Your task to perform on an android device: turn smart compose on in the gmail app Image 0: 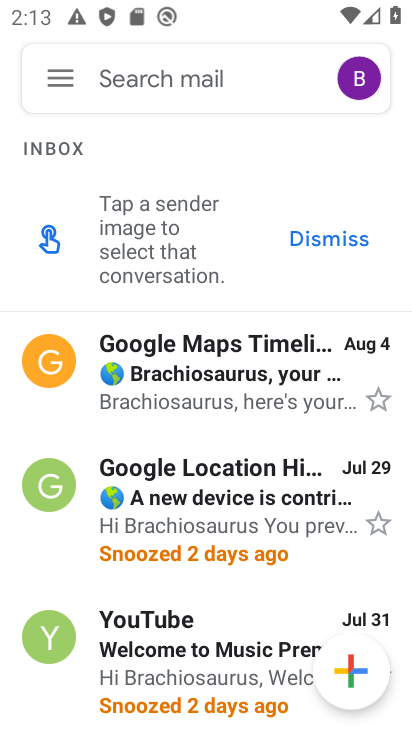
Step 0: click (50, 79)
Your task to perform on an android device: turn smart compose on in the gmail app Image 1: 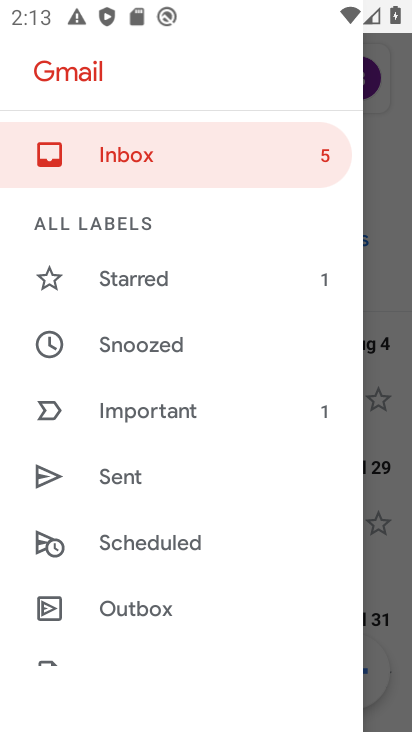
Step 1: drag from (190, 640) to (136, 113)
Your task to perform on an android device: turn smart compose on in the gmail app Image 2: 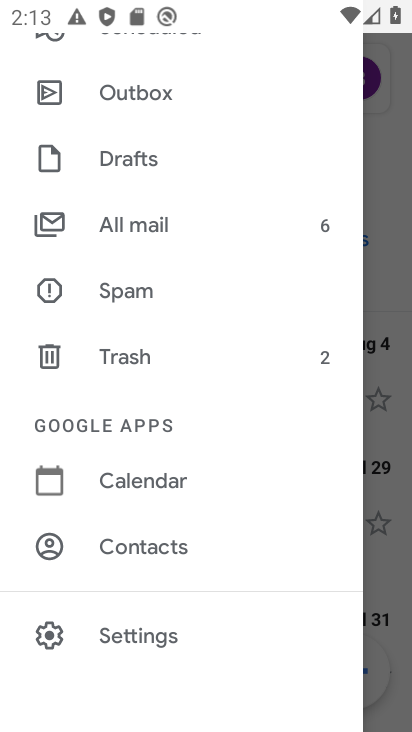
Step 2: click (187, 641)
Your task to perform on an android device: turn smart compose on in the gmail app Image 3: 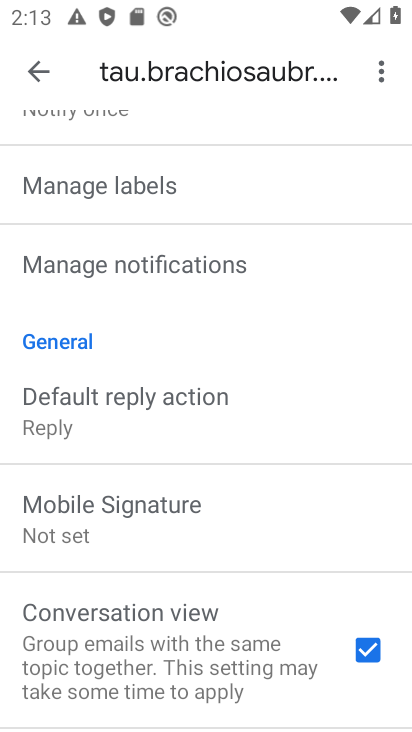
Step 3: task complete